Your task to perform on an android device: toggle javascript in the chrome app Image 0: 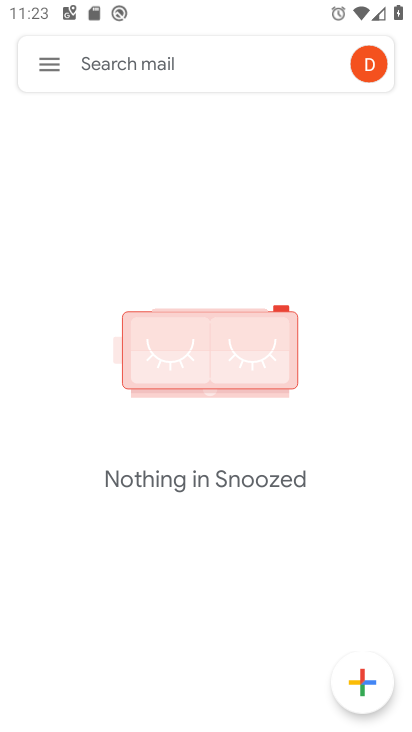
Step 0: press home button
Your task to perform on an android device: toggle javascript in the chrome app Image 1: 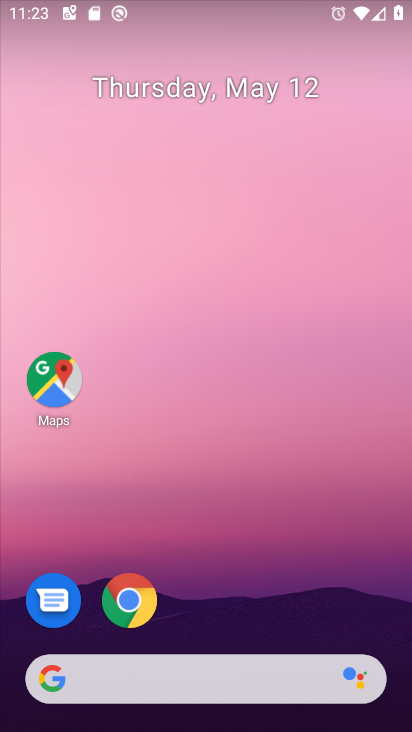
Step 1: click (119, 589)
Your task to perform on an android device: toggle javascript in the chrome app Image 2: 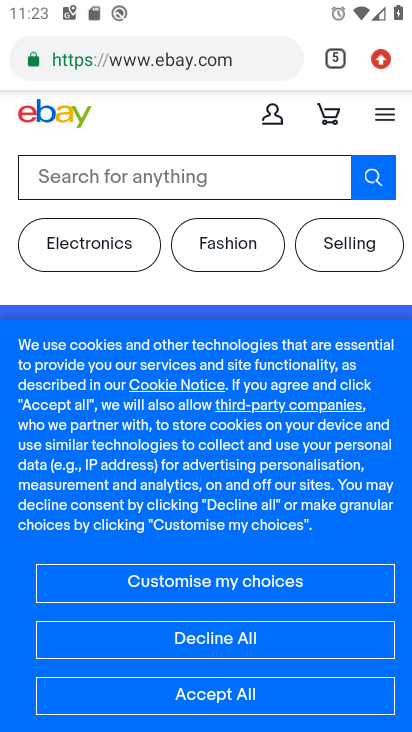
Step 2: click (383, 63)
Your task to perform on an android device: toggle javascript in the chrome app Image 3: 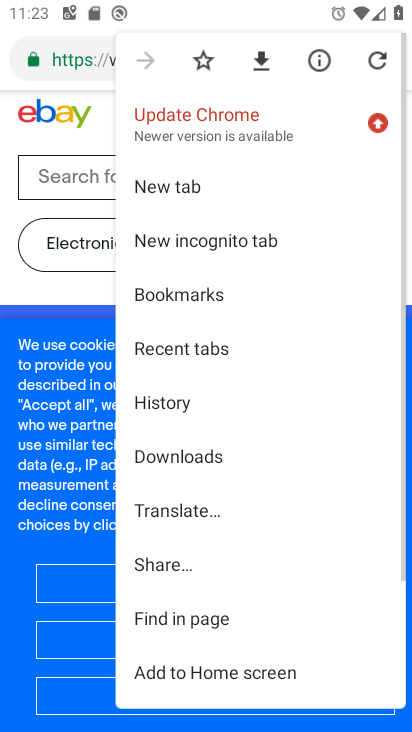
Step 3: drag from (208, 655) to (229, 434)
Your task to perform on an android device: toggle javascript in the chrome app Image 4: 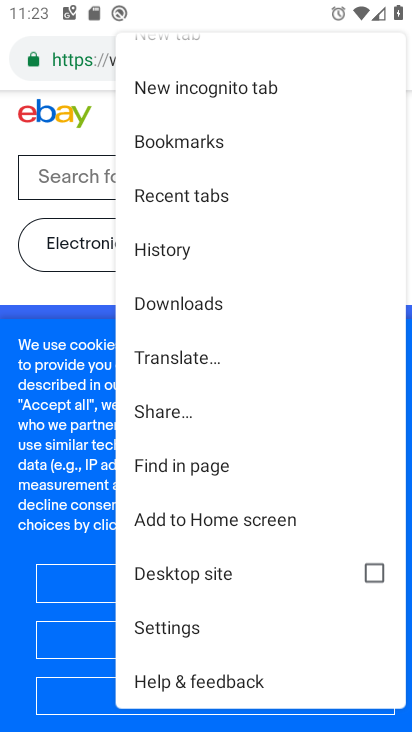
Step 4: click (167, 620)
Your task to perform on an android device: toggle javascript in the chrome app Image 5: 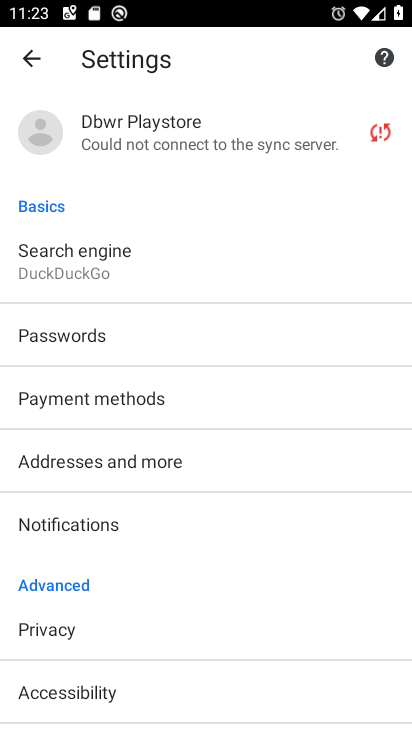
Step 5: drag from (151, 668) to (178, 411)
Your task to perform on an android device: toggle javascript in the chrome app Image 6: 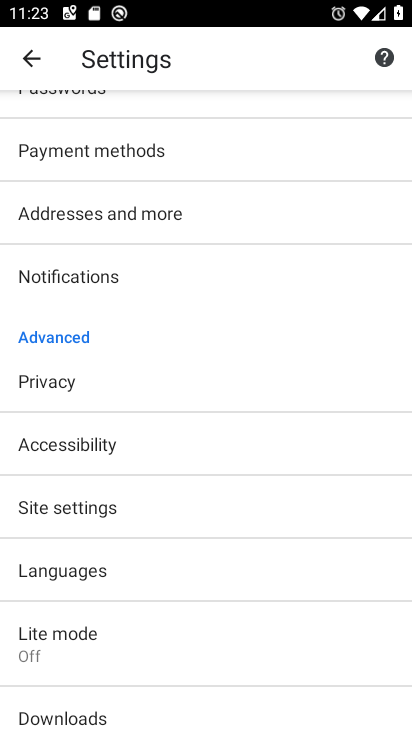
Step 6: click (66, 516)
Your task to perform on an android device: toggle javascript in the chrome app Image 7: 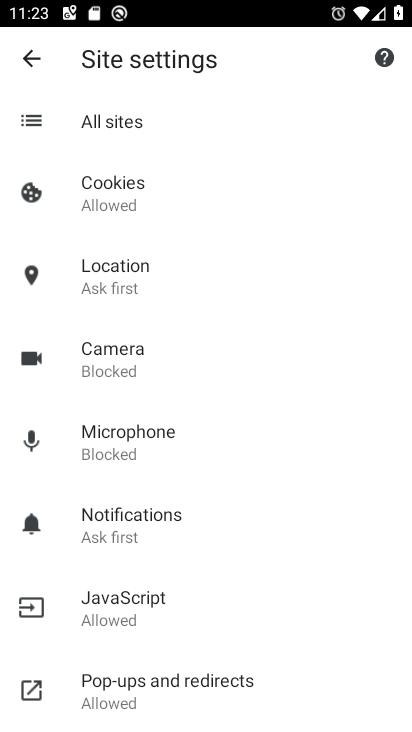
Step 7: click (136, 610)
Your task to perform on an android device: toggle javascript in the chrome app Image 8: 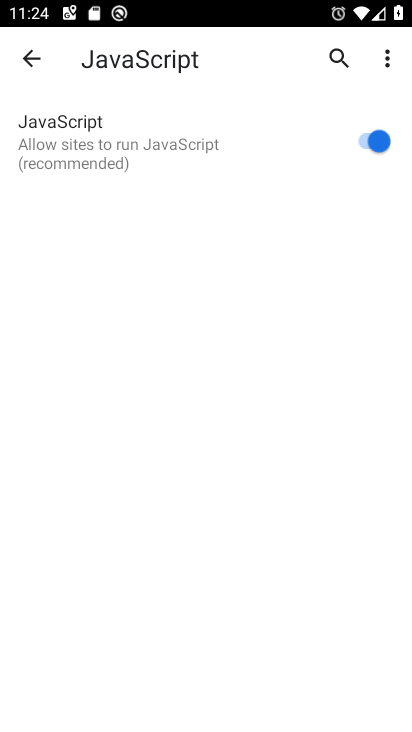
Step 8: click (377, 146)
Your task to perform on an android device: toggle javascript in the chrome app Image 9: 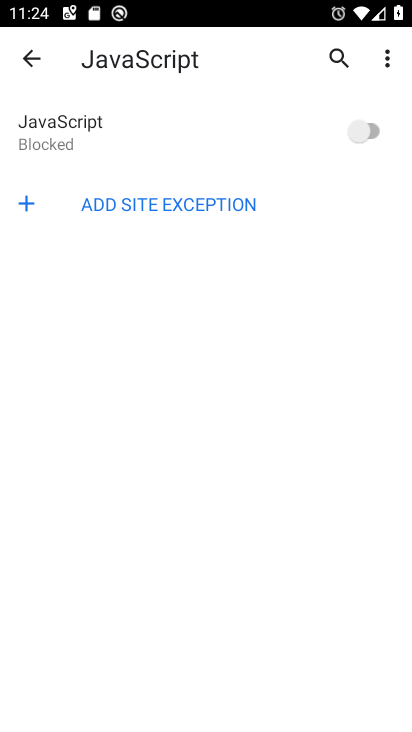
Step 9: task complete